Your task to perform on an android device: Open the web browser Image 0: 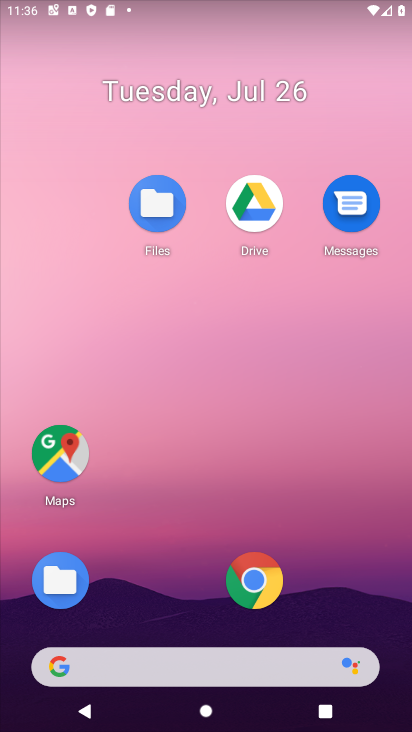
Step 0: click (177, 668)
Your task to perform on an android device: Open the web browser Image 1: 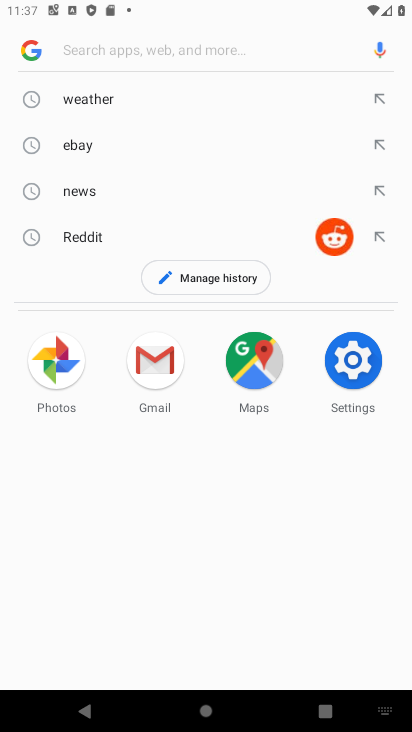
Step 1: task complete